Your task to perform on an android device: Go to settings Image 0: 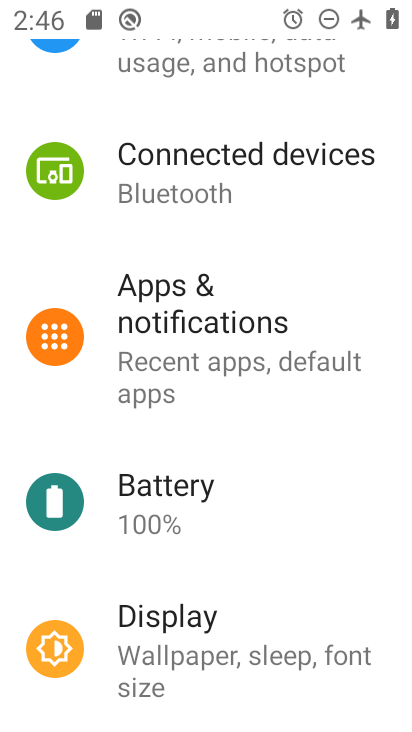
Step 0: drag from (314, 640) to (308, 217)
Your task to perform on an android device: Go to settings Image 1: 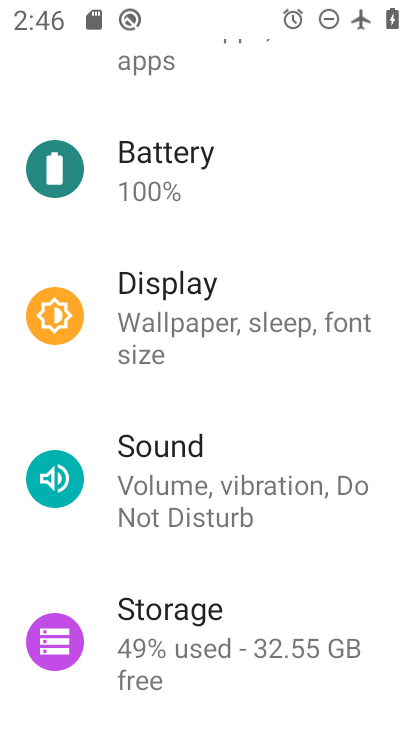
Step 1: task complete